Your task to perform on an android device: Open the phone app and click the voicemail tab. Image 0: 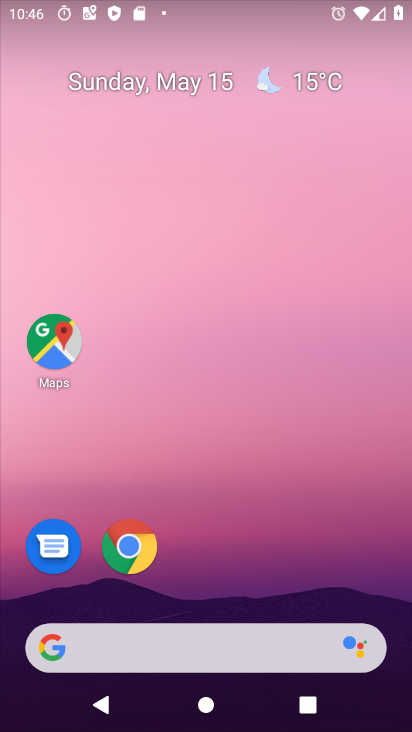
Step 0: drag from (335, 579) to (274, 113)
Your task to perform on an android device: Open the phone app and click the voicemail tab. Image 1: 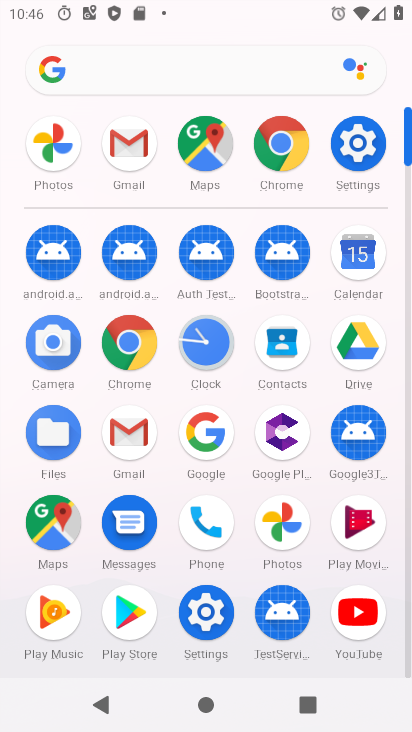
Step 1: click (197, 521)
Your task to perform on an android device: Open the phone app and click the voicemail tab. Image 2: 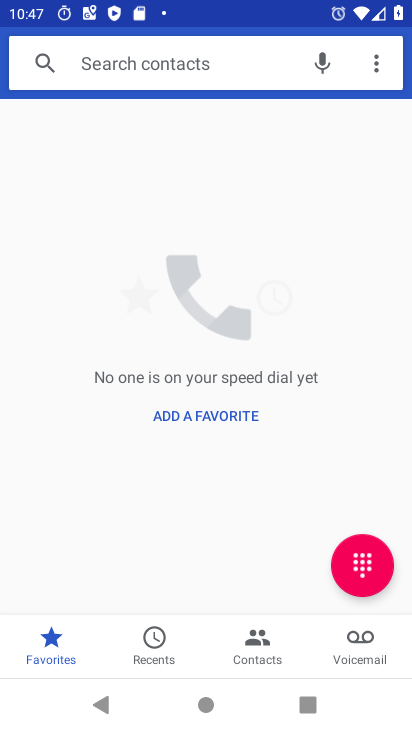
Step 2: click (373, 642)
Your task to perform on an android device: Open the phone app and click the voicemail tab. Image 3: 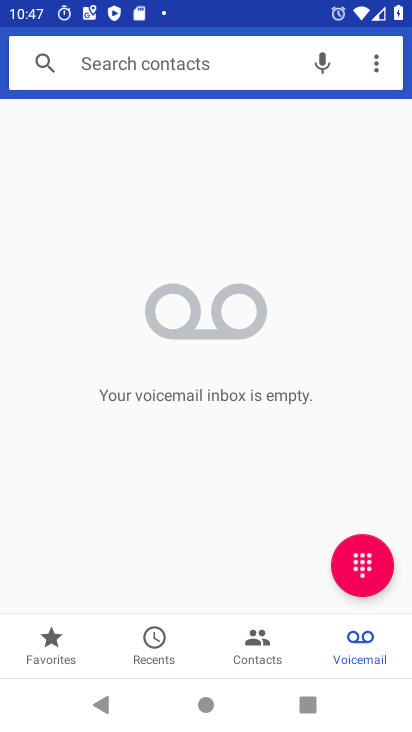
Step 3: task complete